Your task to perform on an android device: Go to Reddit.com Image 0: 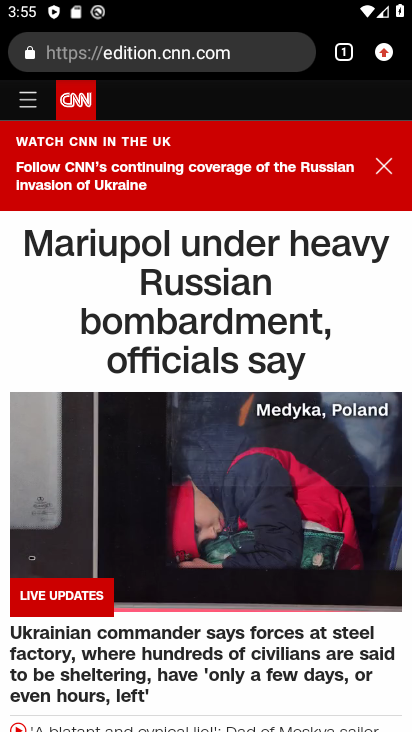
Step 0: press back button
Your task to perform on an android device: Go to Reddit.com Image 1: 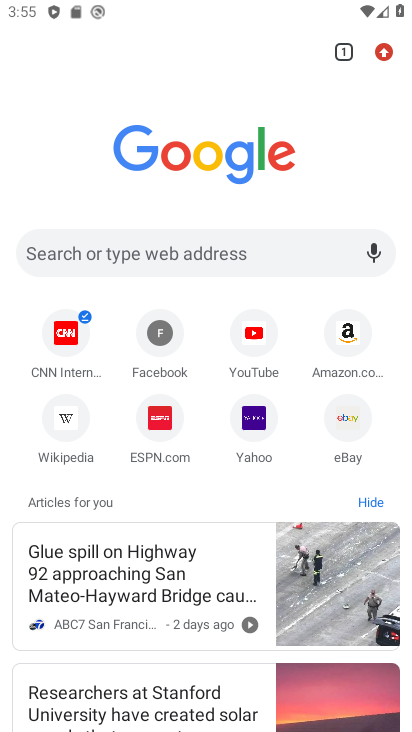
Step 1: click (241, 251)
Your task to perform on an android device: Go to Reddit.com Image 2: 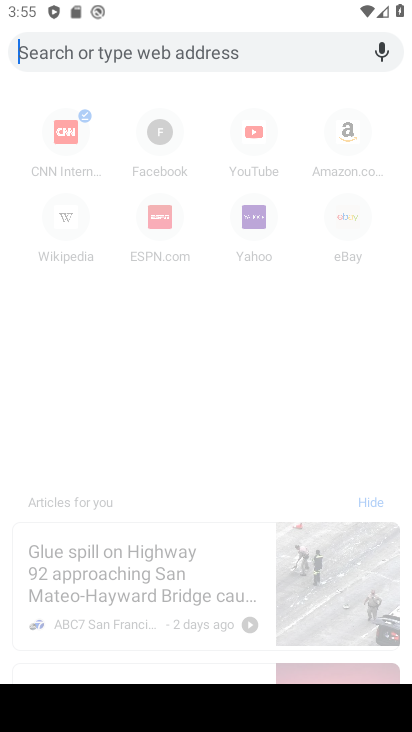
Step 2: type "reddit.com"
Your task to perform on an android device: Go to Reddit.com Image 3: 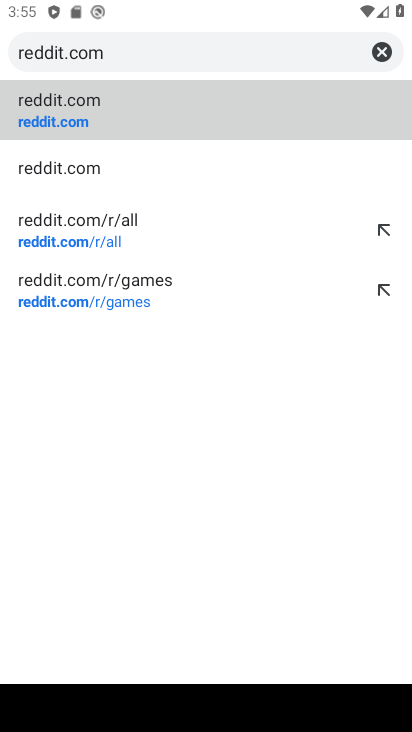
Step 3: click (106, 106)
Your task to perform on an android device: Go to Reddit.com Image 4: 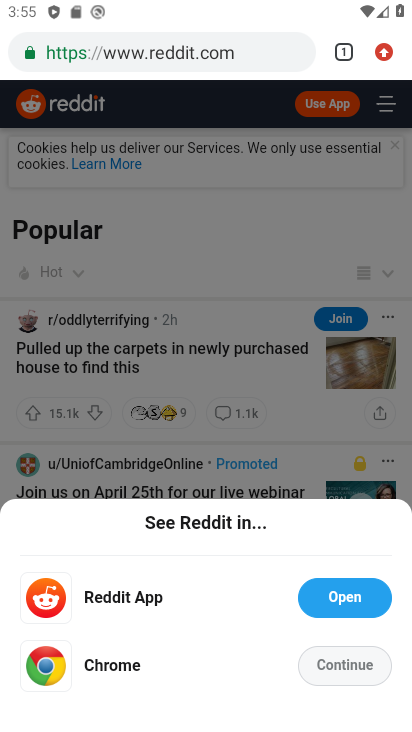
Step 4: task complete